Your task to perform on an android device: open app "Messages" Image 0: 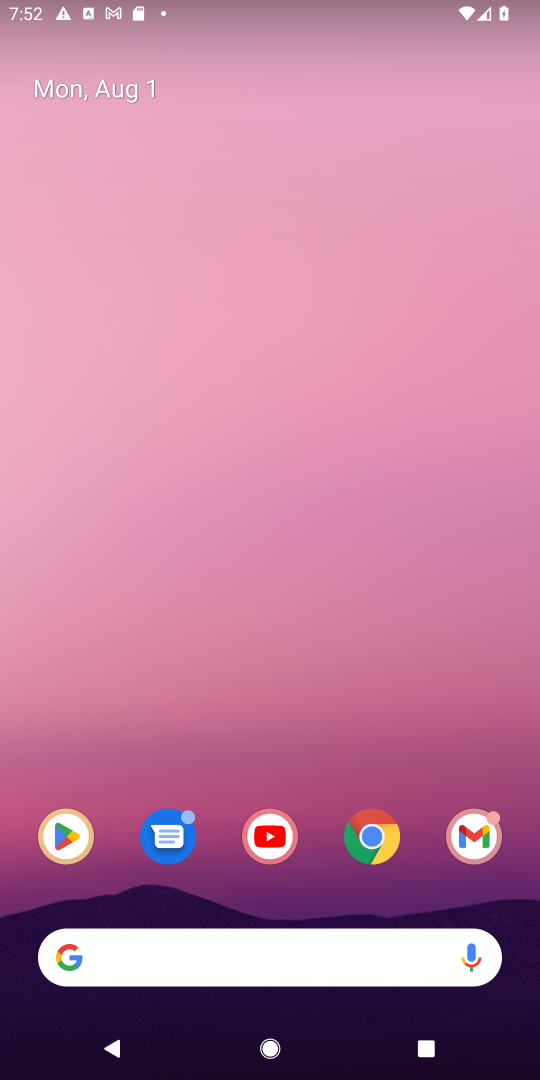
Step 0: press home button
Your task to perform on an android device: open app "Messages" Image 1: 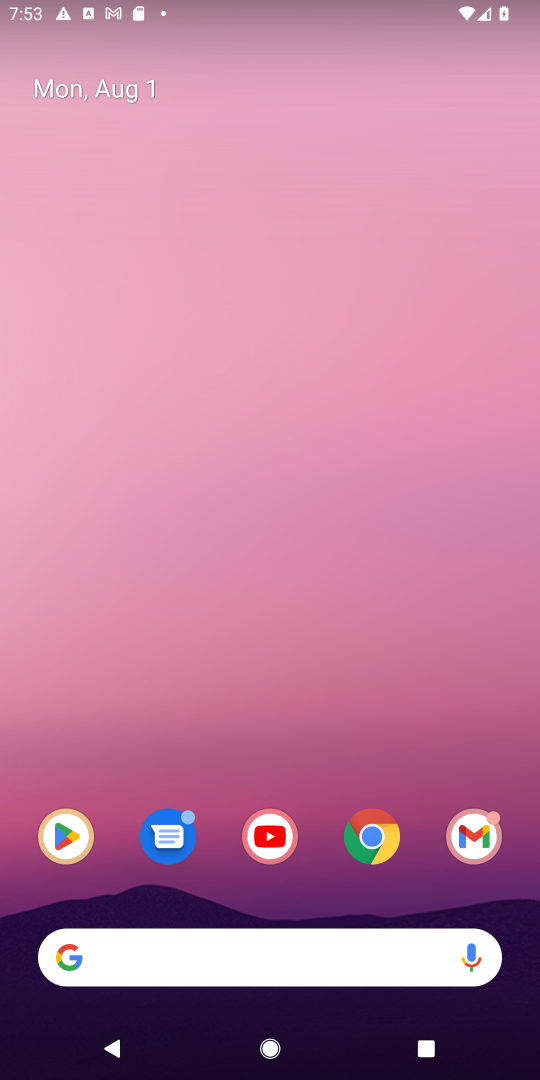
Step 1: click (69, 839)
Your task to perform on an android device: open app "Messages" Image 2: 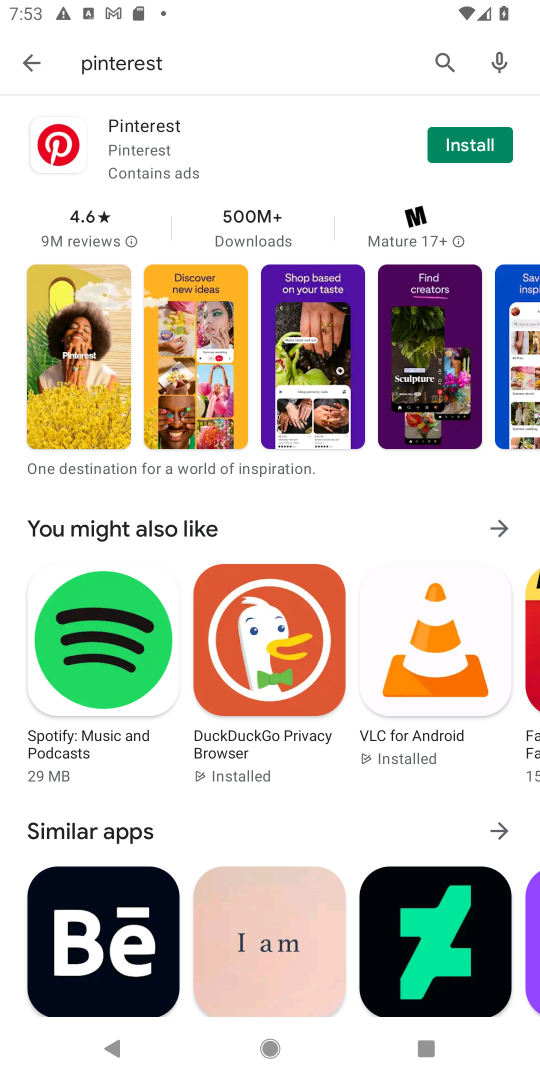
Step 2: click (444, 57)
Your task to perform on an android device: open app "Messages" Image 3: 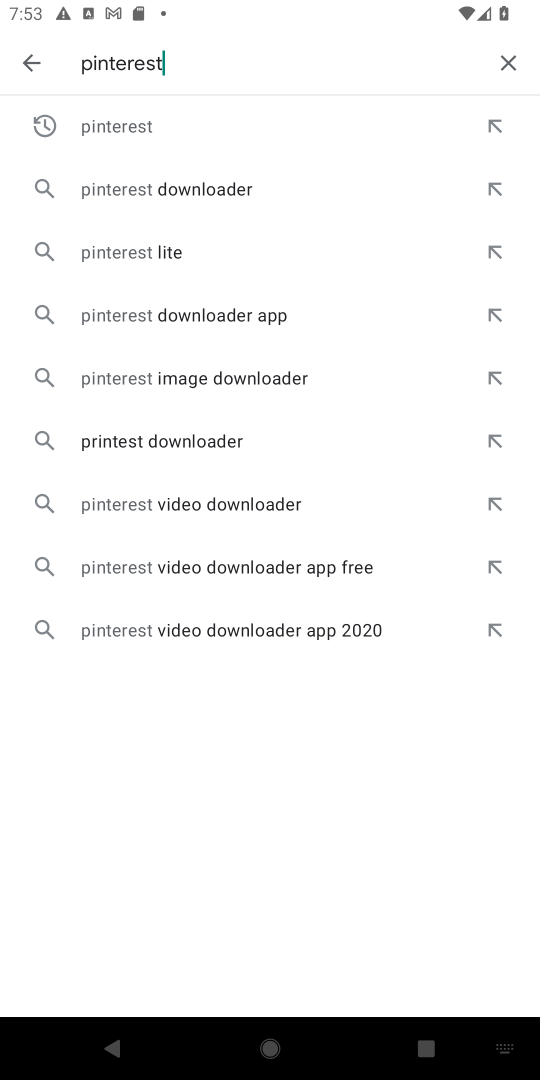
Step 3: click (506, 59)
Your task to perform on an android device: open app "Messages" Image 4: 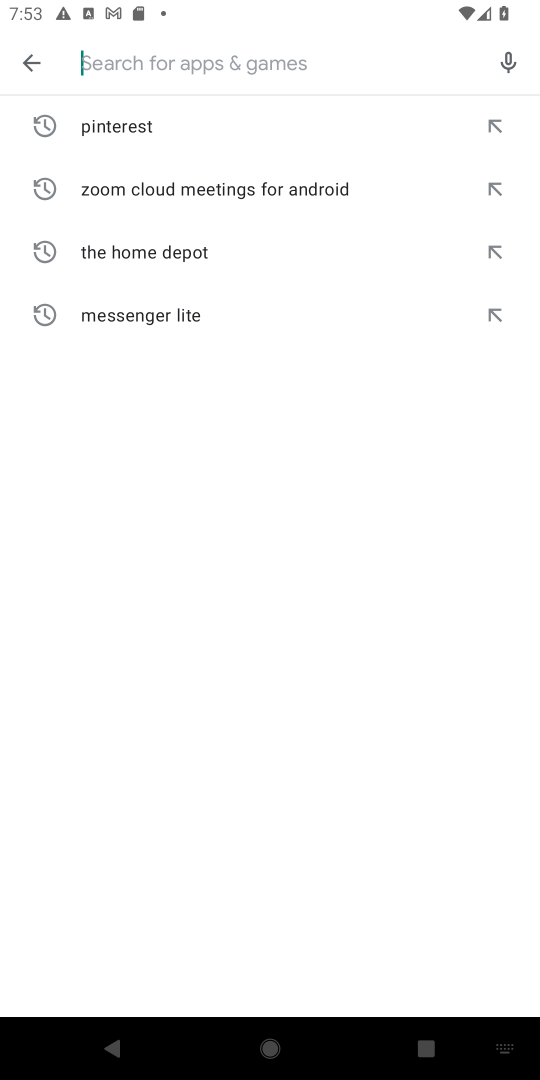
Step 4: type "Messages"
Your task to perform on an android device: open app "Messages" Image 5: 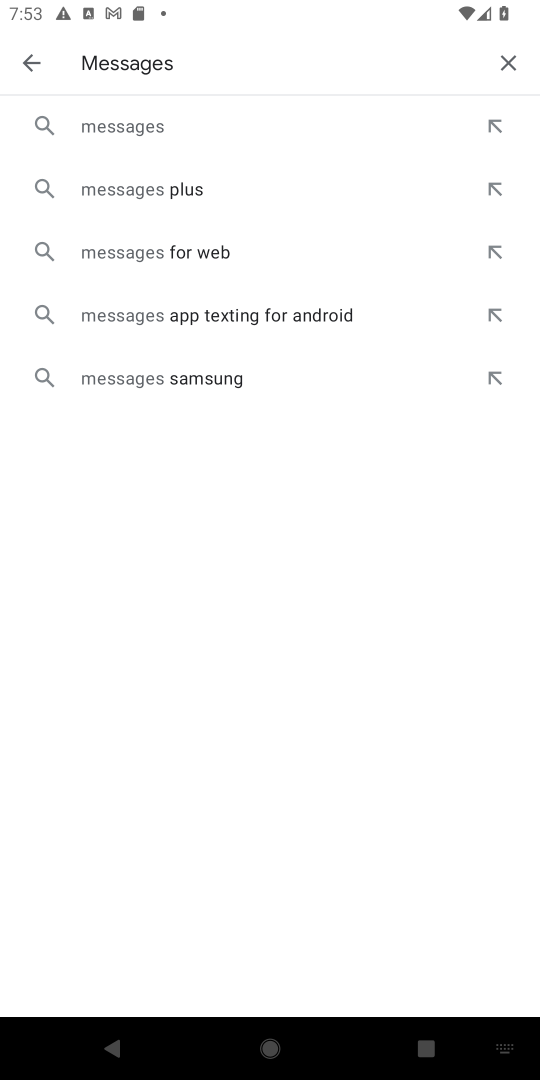
Step 5: click (148, 121)
Your task to perform on an android device: open app "Messages" Image 6: 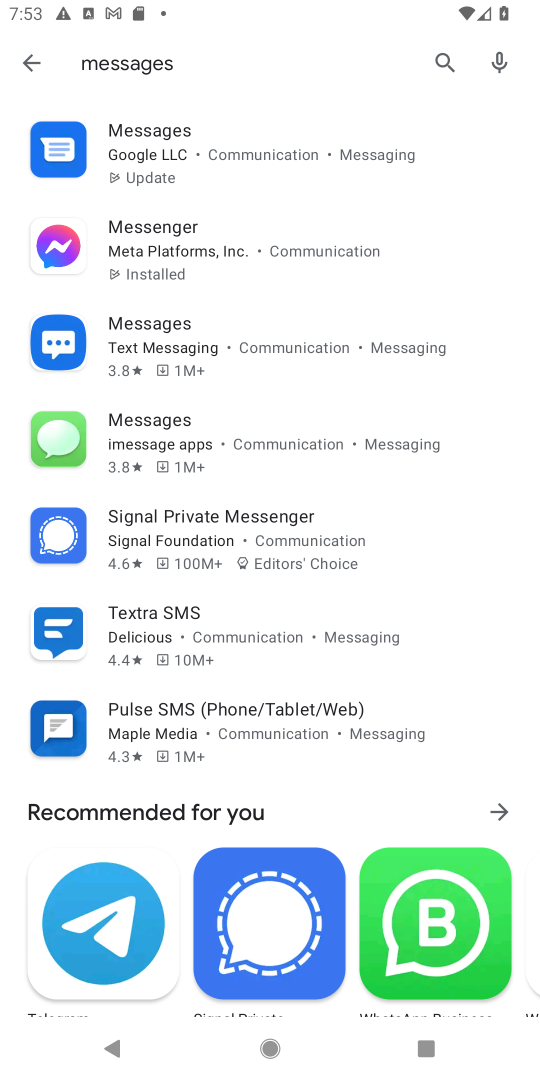
Step 6: click (190, 162)
Your task to perform on an android device: open app "Messages" Image 7: 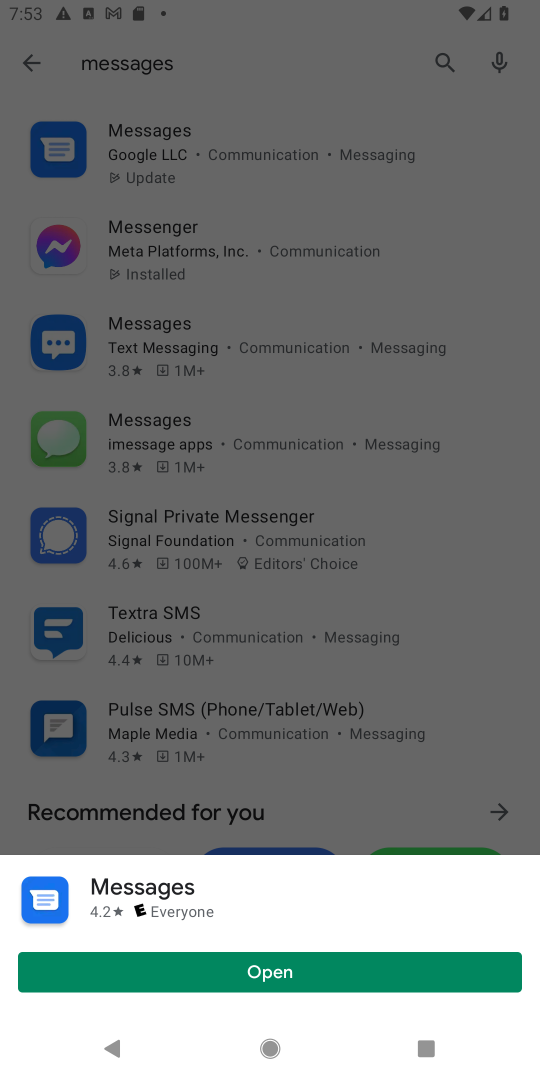
Step 7: click (292, 979)
Your task to perform on an android device: open app "Messages" Image 8: 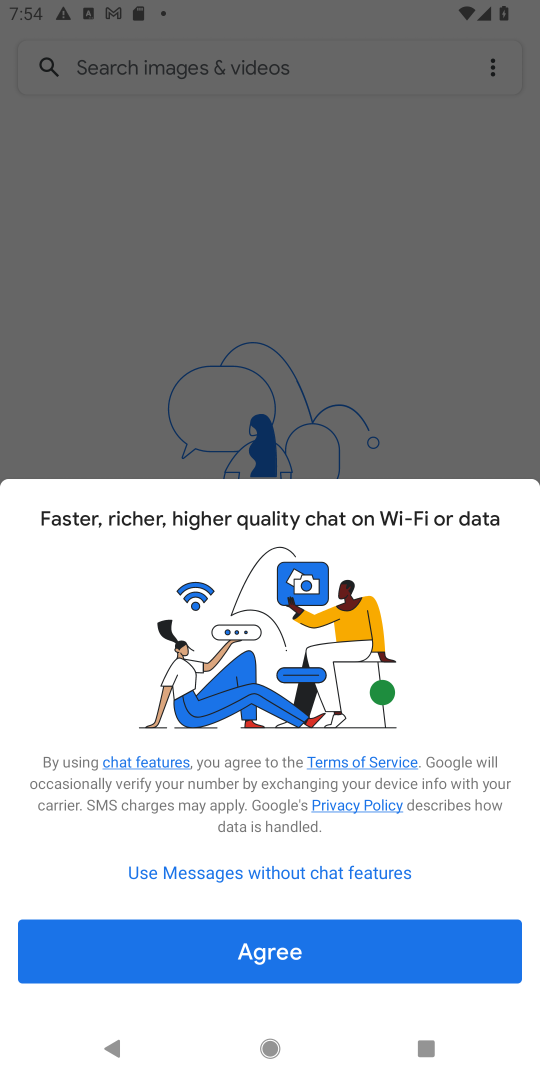
Step 8: task complete